Your task to perform on an android device: toggle sleep mode Image 0: 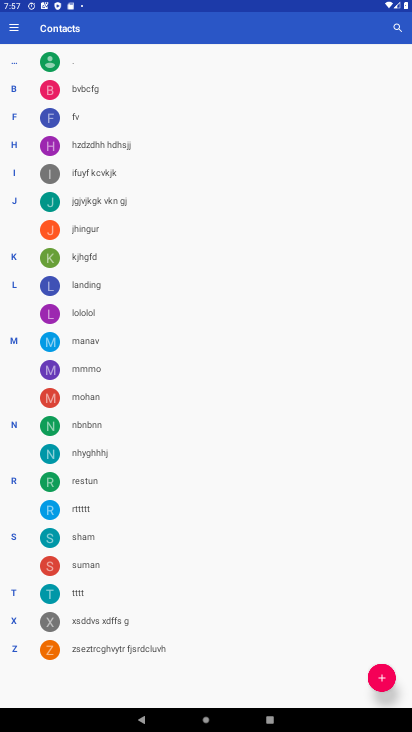
Step 0: press home button
Your task to perform on an android device: toggle sleep mode Image 1: 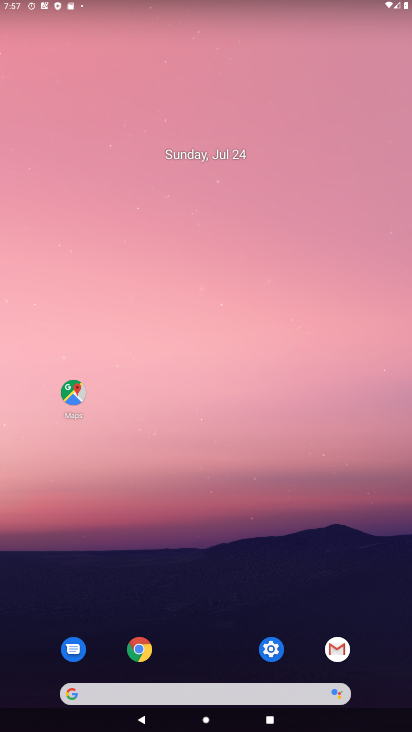
Step 1: click (280, 652)
Your task to perform on an android device: toggle sleep mode Image 2: 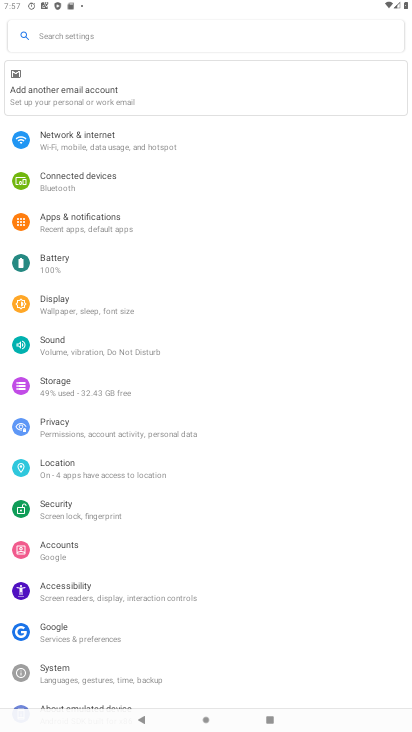
Step 2: click (79, 40)
Your task to perform on an android device: toggle sleep mode Image 3: 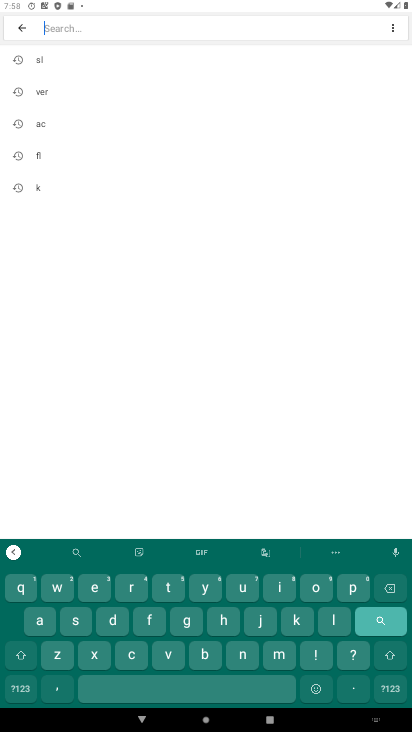
Step 3: click (53, 60)
Your task to perform on an android device: toggle sleep mode Image 4: 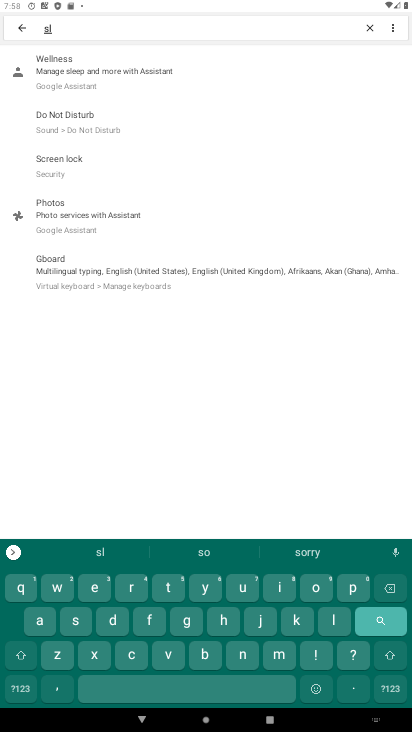
Step 4: click (93, 70)
Your task to perform on an android device: toggle sleep mode Image 5: 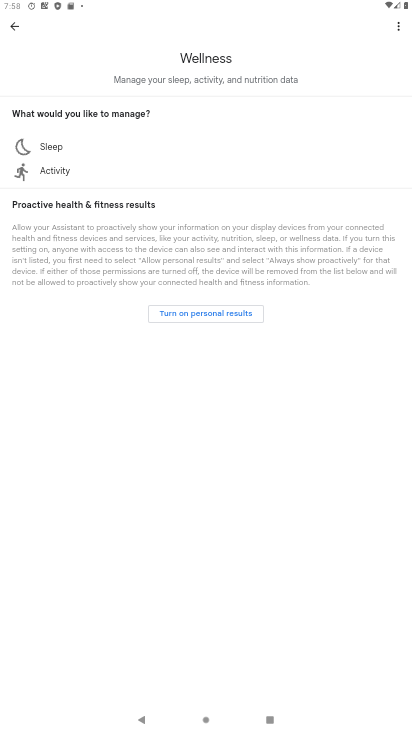
Step 5: click (41, 142)
Your task to perform on an android device: toggle sleep mode Image 6: 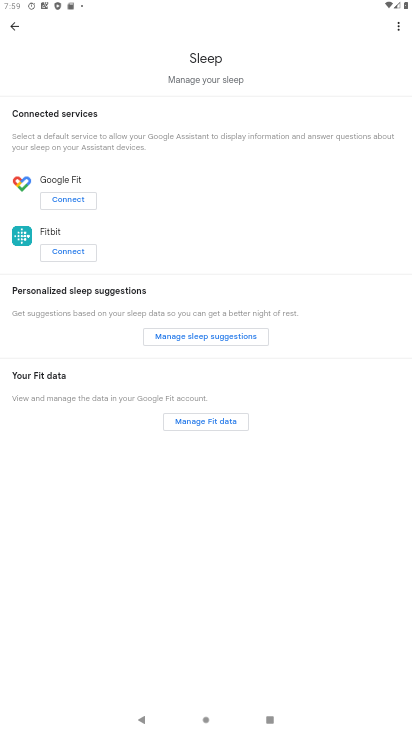
Step 6: task complete